Your task to perform on an android device: check data usage Image 0: 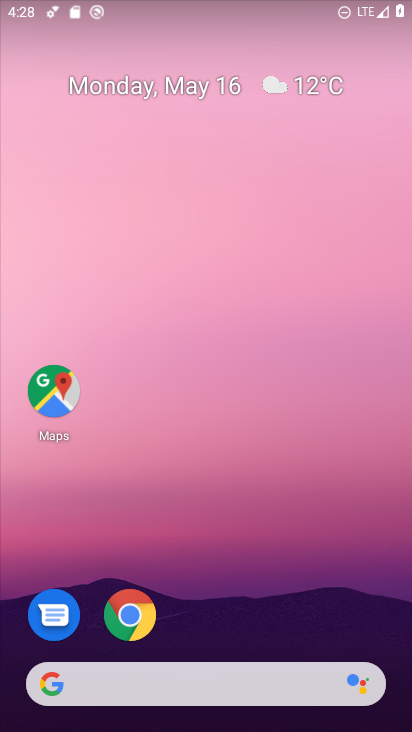
Step 0: drag from (218, 718) to (218, 134)
Your task to perform on an android device: check data usage Image 1: 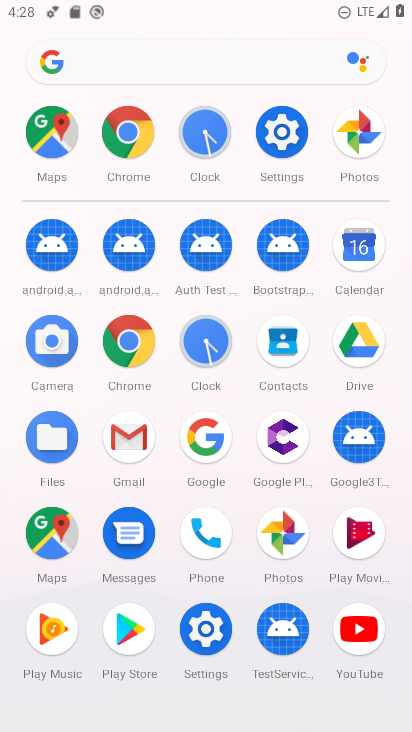
Step 1: click (284, 140)
Your task to perform on an android device: check data usage Image 2: 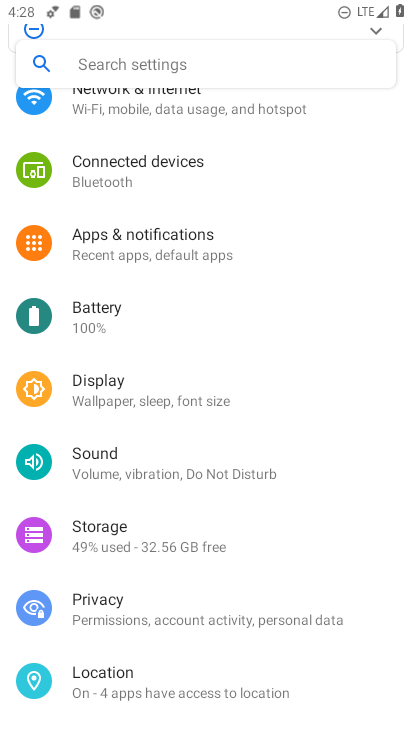
Step 2: drag from (218, 135) to (229, 657)
Your task to perform on an android device: check data usage Image 3: 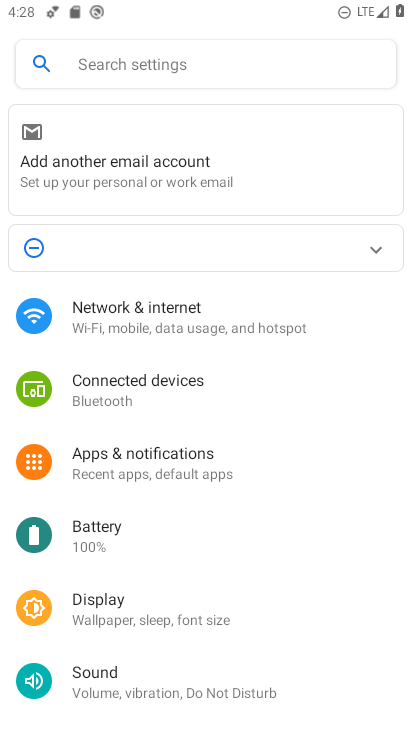
Step 3: click (142, 325)
Your task to perform on an android device: check data usage Image 4: 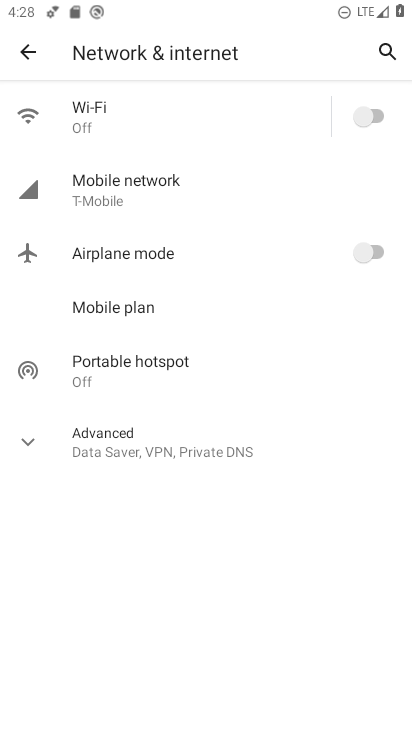
Step 4: click (103, 177)
Your task to perform on an android device: check data usage Image 5: 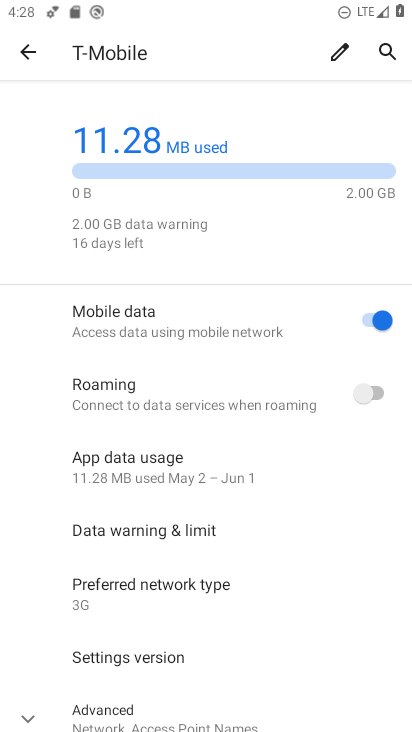
Step 5: click (150, 470)
Your task to perform on an android device: check data usage Image 6: 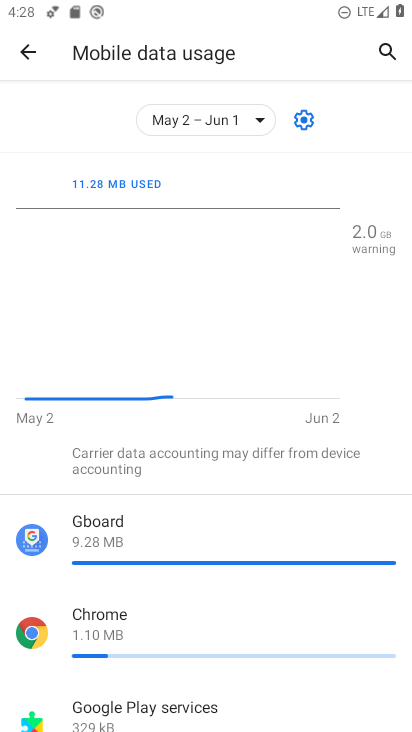
Step 6: task complete